Your task to perform on an android device: check storage Image 0: 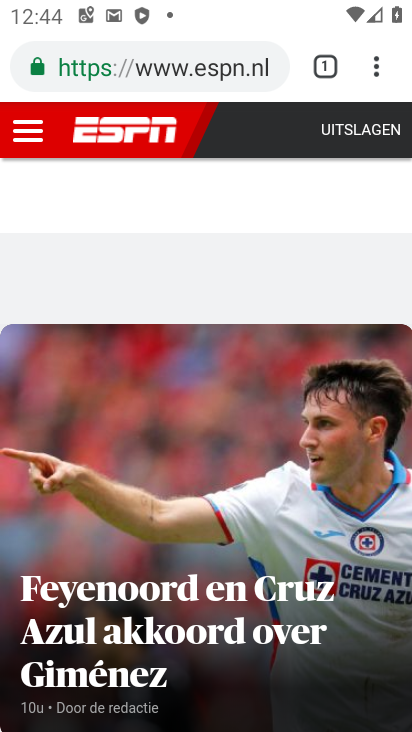
Step 0: press home button
Your task to perform on an android device: check storage Image 1: 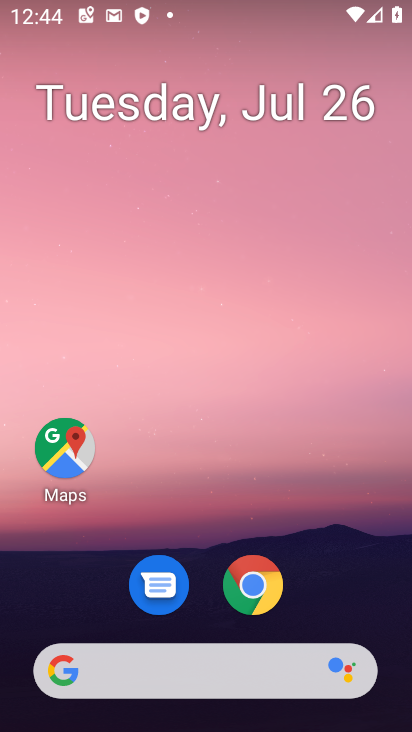
Step 1: drag from (192, 674) to (319, 174)
Your task to perform on an android device: check storage Image 2: 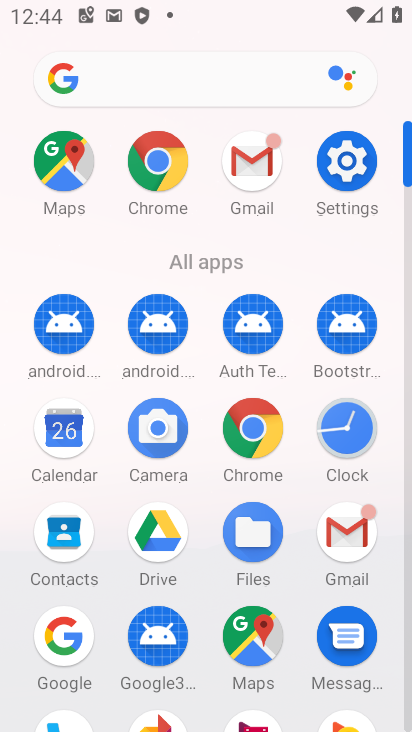
Step 2: click (341, 159)
Your task to perform on an android device: check storage Image 3: 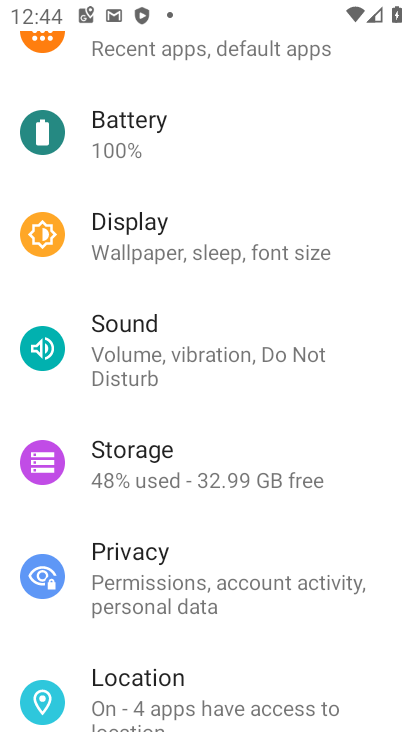
Step 3: click (154, 460)
Your task to perform on an android device: check storage Image 4: 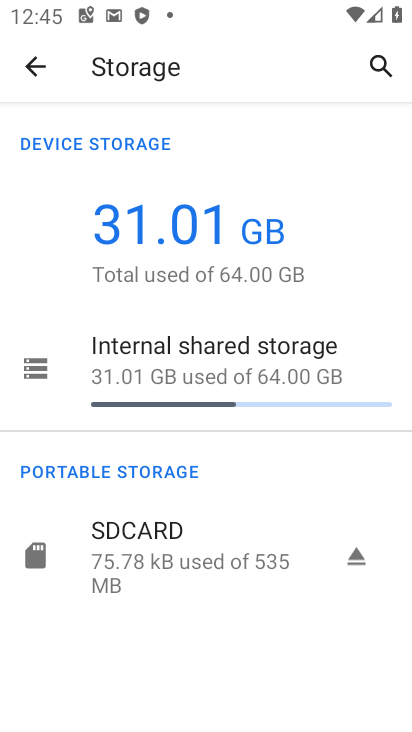
Step 4: task complete